Your task to perform on an android device: turn off sleep mode Image 0: 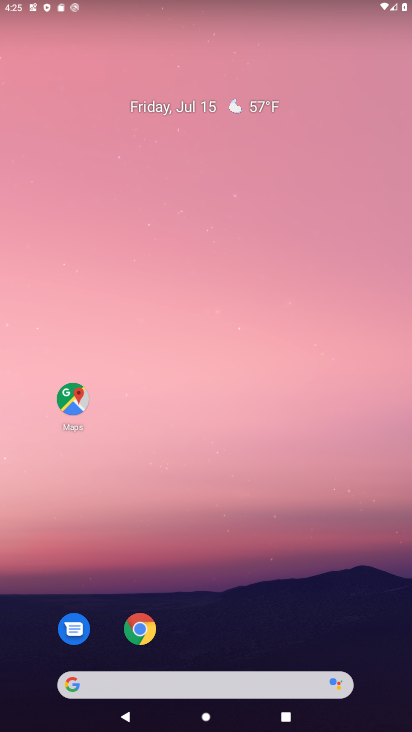
Step 0: press home button
Your task to perform on an android device: turn off sleep mode Image 1: 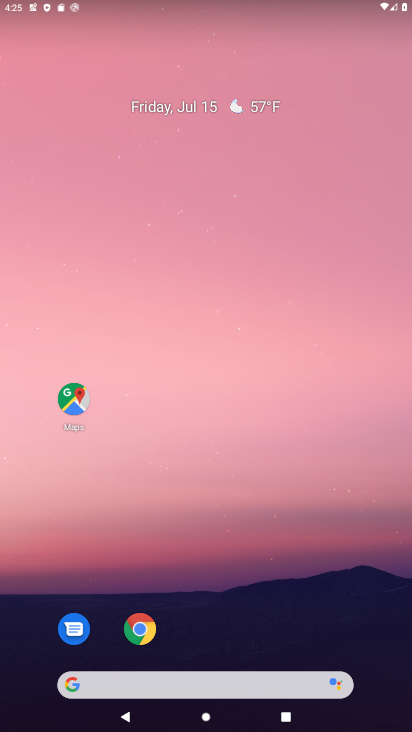
Step 1: drag from (250, 622) to (164, 2)
Your task to perform on an android device: turn off sleep mode Image 2: 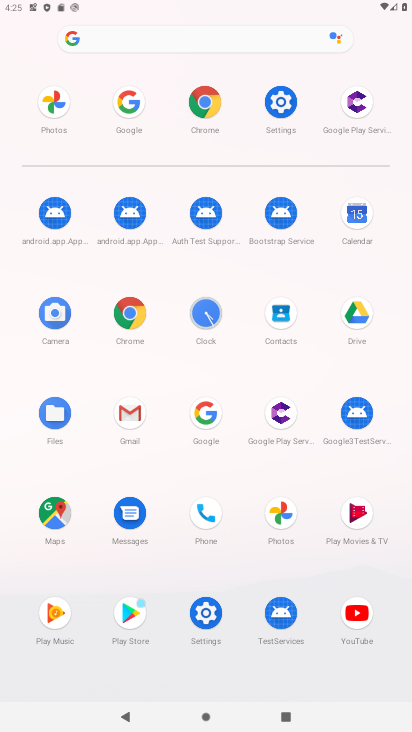
Step 2: click (277, 97)
Your task to perform on an android device: turn off sleep mode Image 3: 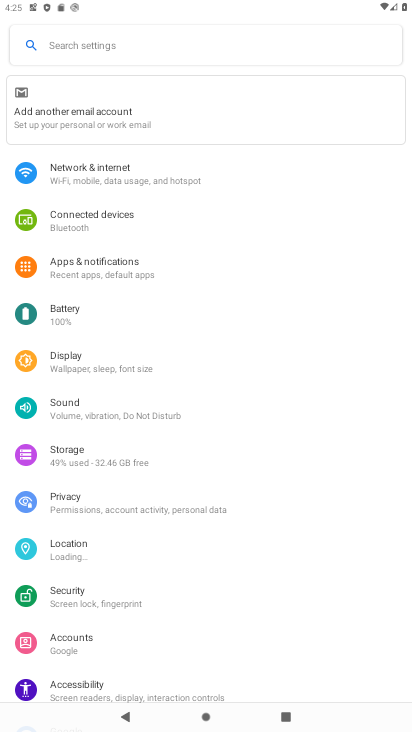
Step 3: click (63, 353)
Your task to perform on an android device: turn off sleep mode Image 4: 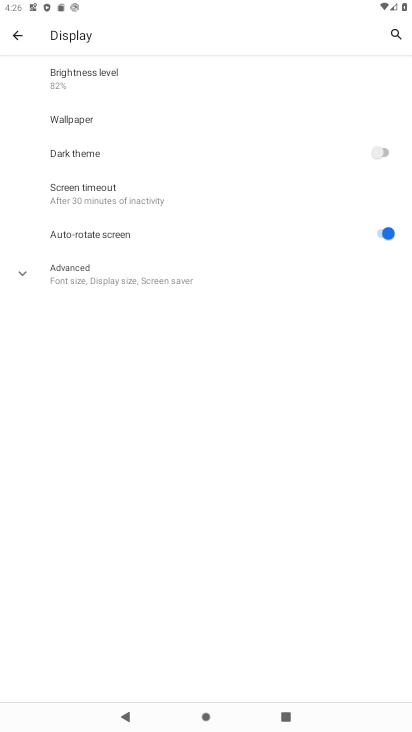
Step 4: task complete